Your task to perform on an android device: change keyboard looks Image 0: 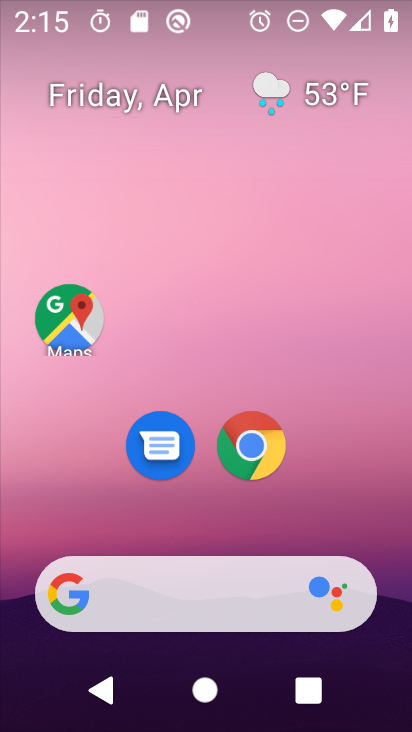
Step 0: drag from (379, 501) to (383, 93)
Your task to perform on an android device: change keyboard looks Image 1: 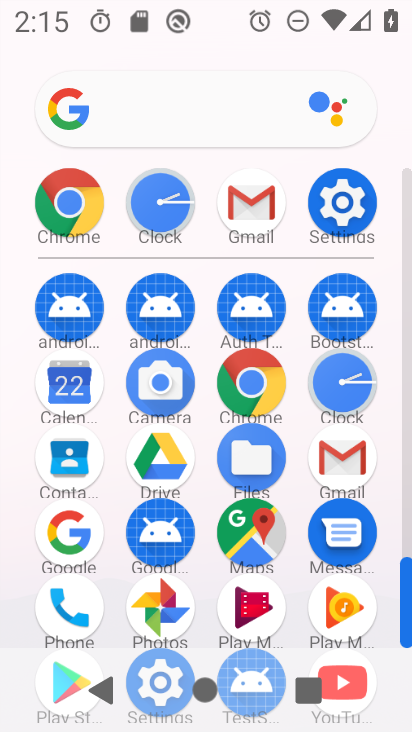
Step 1: click (352, 216)
Your task to perform on an android device: change keyboard looks Image 2: 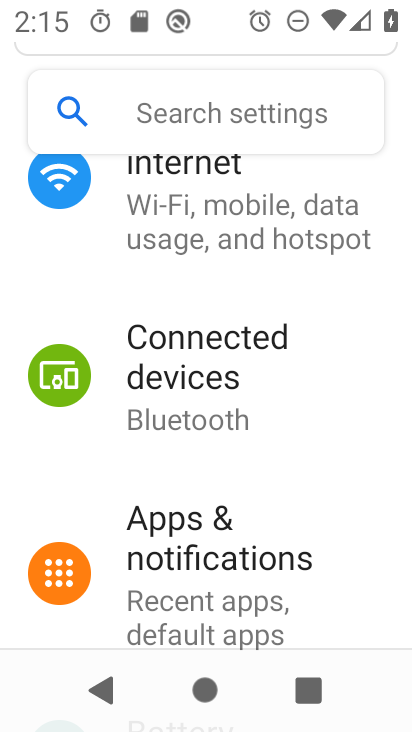
Step 2: drag from (364, 487) to (373, 386)
Your task to perform on an android device: change keyboard looks Image 3: 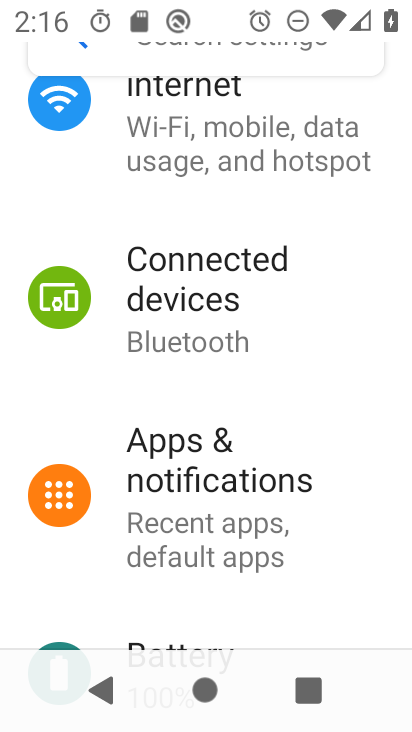
Step 3: drag from (362, 524) to (345, 361)
Your task to perform on an android device: change keyboard looks Image 4: 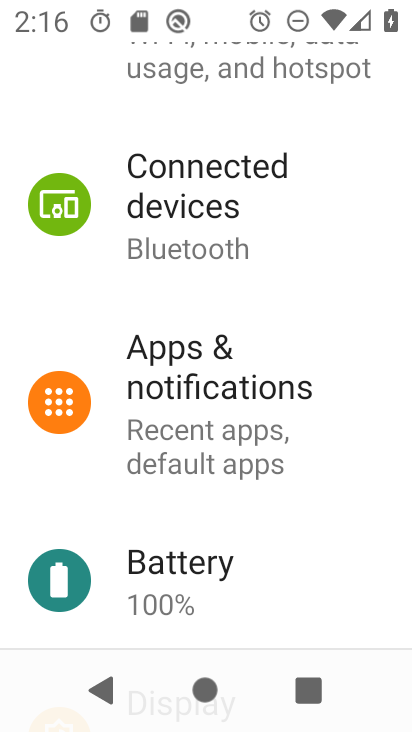
Step 4: drag from (353, 517) to (355, 379)
Your task to perform on an android device: change keyboard looks Image 5: 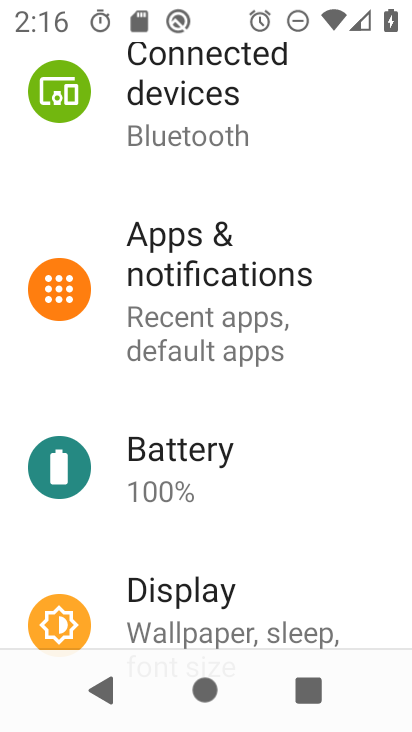
Step 5: drag from (350, 535) to (349, 376)
Your task to perform on an android device: change keyboard looks Image 6: 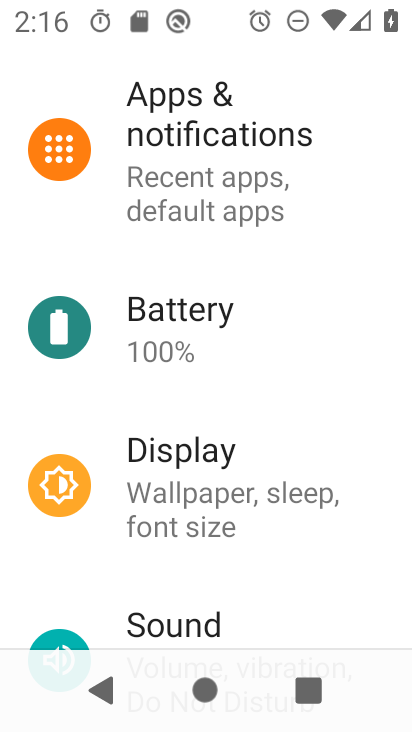
Step 6: drag from (358, 486) to (365, 345)
Your task to perform on an android device: change keyboard looks Image 7: 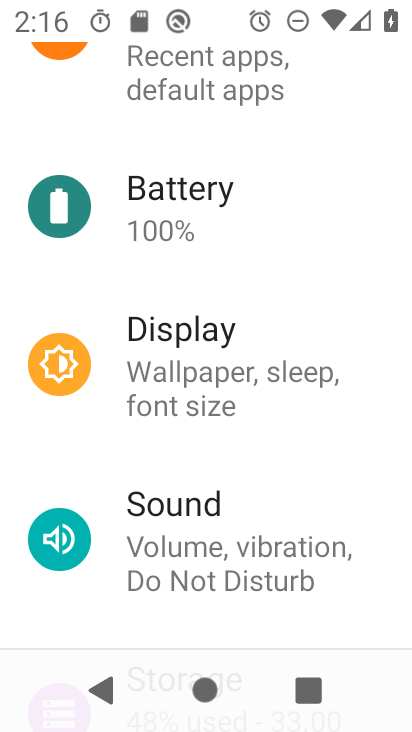
Step 7: drag from (354, 603) to (361, 462)
Your task to perform on an android device: change keyboard looks Image 8: 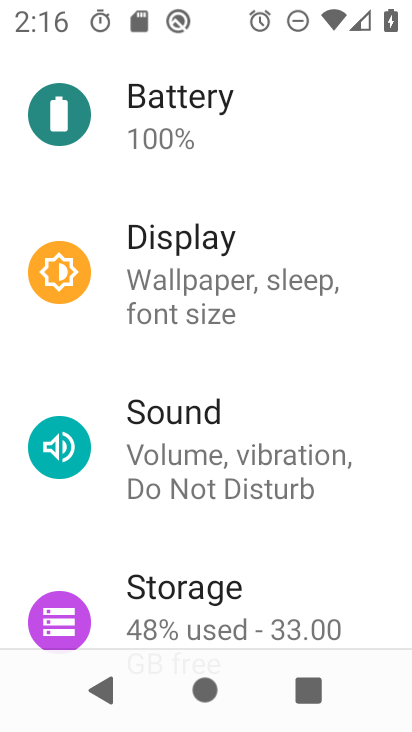
Step 8: drag from (370, 559) to (375, 350)
Your task to perform on an android device: change keyboard looks Image 9: 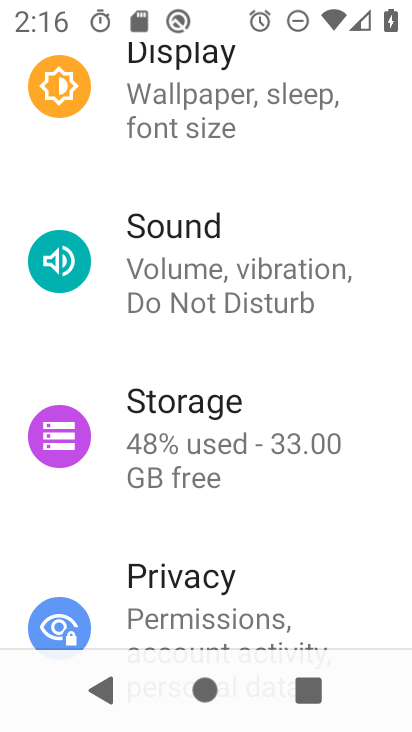
Step 9: drag from (358, 553) to (373, 391)
Your task to perform on an android device: change keyboard looks Image 10: 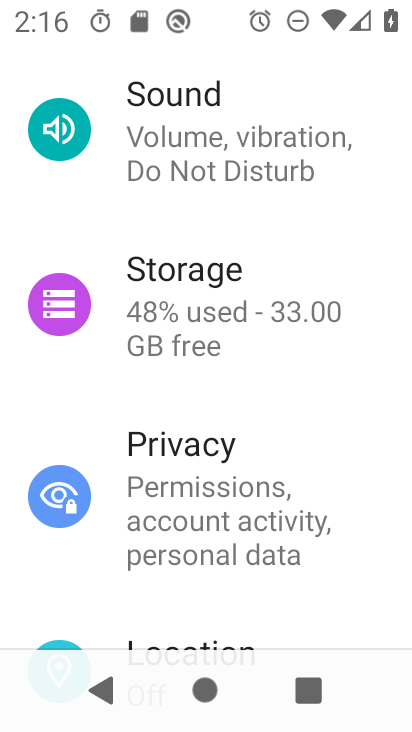
Step 10: drag from (365, 591) to (370, 441)
Your task to perform on an android device: change keyboard looks Image 11: 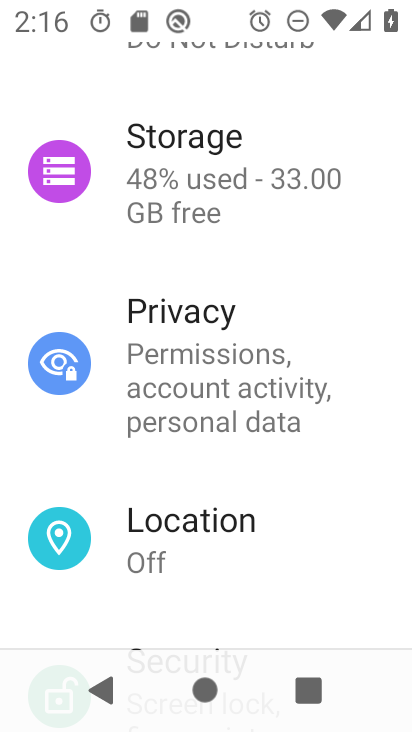
Step 11: drag from (362, 584) to (375, 440)
Your task to perform on an android device: change keyboard looks Image 12: 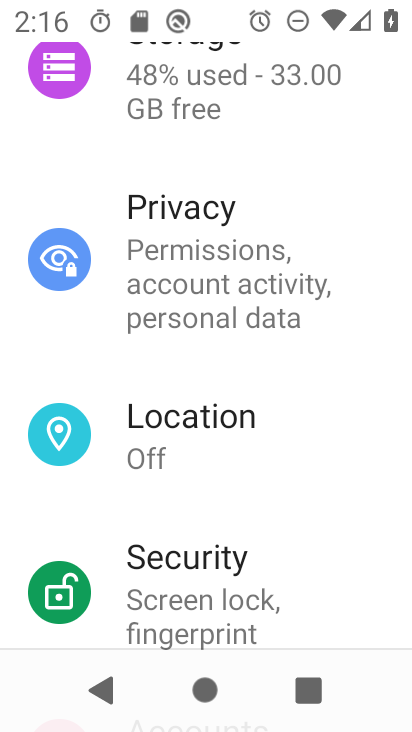
Step 12: drag from (362, 593) to (361, 375)
Your task to perform on an android device: change keyboard looks Image 13: 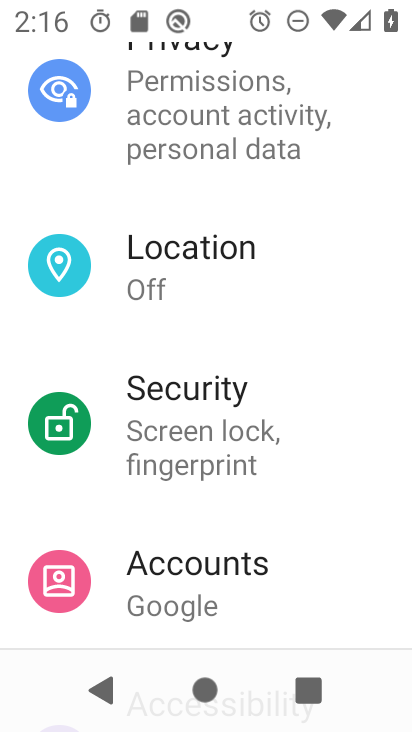
Step 13: drag from (347, 598) to (331, 384)
Your task to perform on an android device: change keyboard looks Image 14: 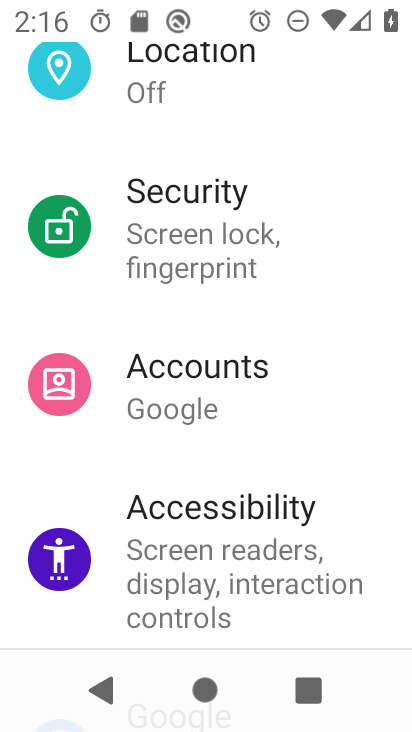
Step 14: drag from (347, 600) to (346, 371)
Your task to perform on an android device: change keyboard looks Image 15: 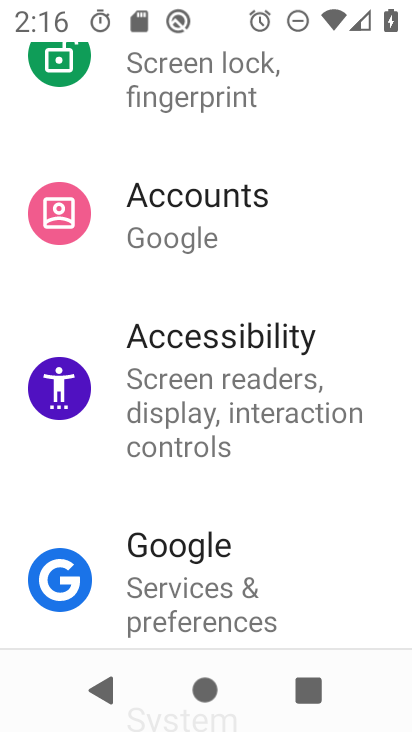
Step 15: drag from (330, 563) to (343, 348)
Your task to perform on an android device: change keyboard looks Image 16: 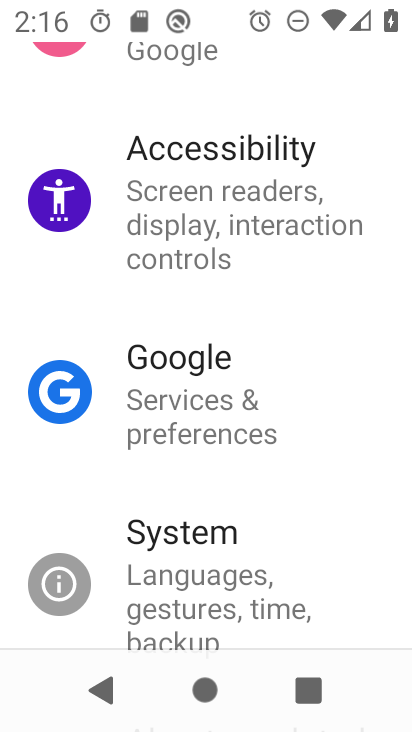
Step 16: drag from (341, 535) to (344, 414)
Your task to perform on an android device: change keyboard looks Image 17: 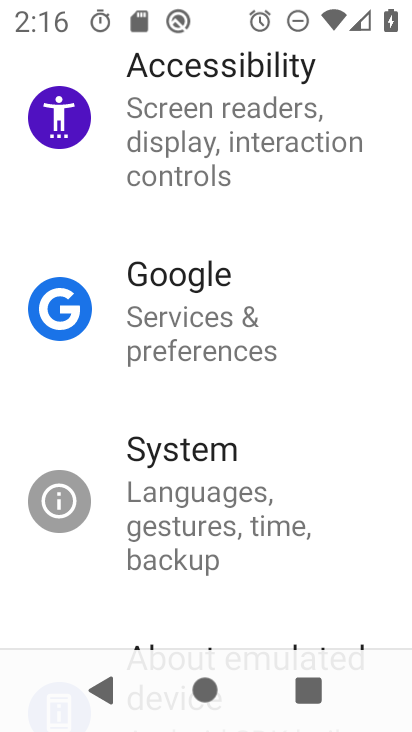
Step 17: click (298, 524)
Your task to perform on an android device: change keyboard looks Image 18: 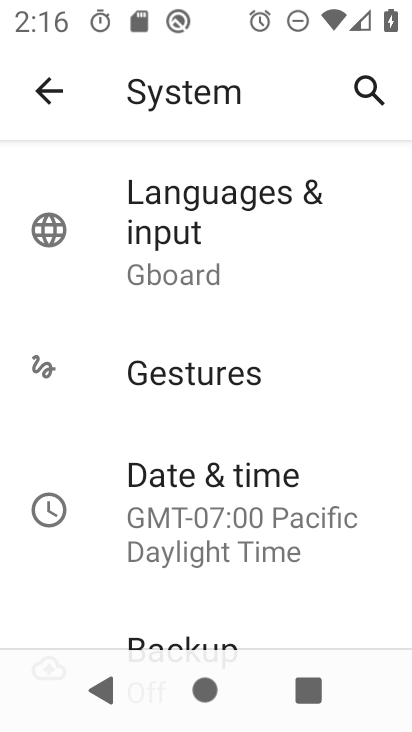
Step 18: drag from (330, 578) to (327, 354)
Your task to perform on an android device: change keyboard looks Image 19: 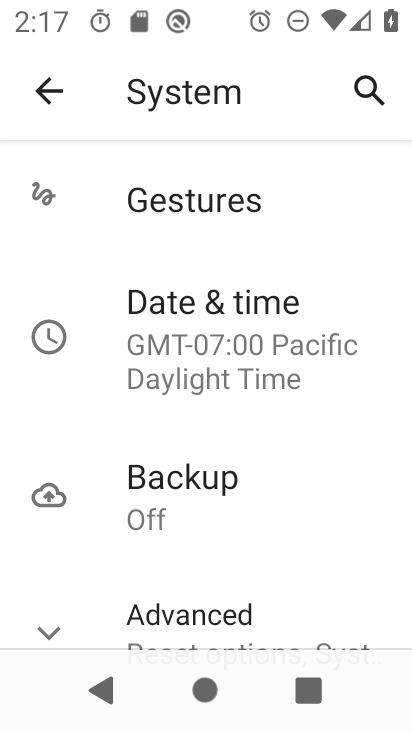
Step 19: drag from (339, 554) to (334, 374)
Your task to perform on an android device: change keyboard looks Image 20: 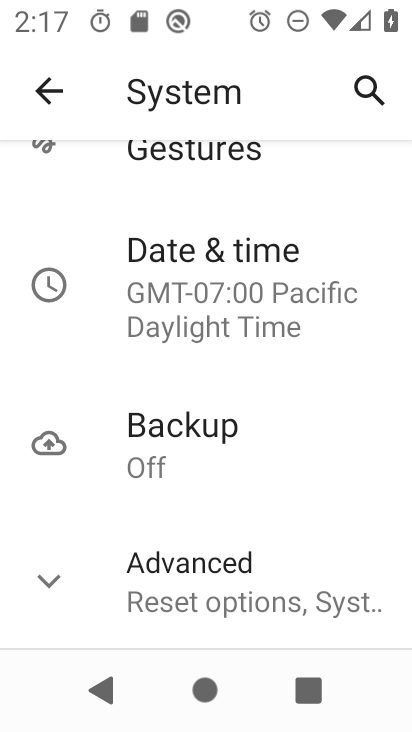
Step 20: drag from (334, 222) to (306, 504)
Your task to perform on an android device: change keyboard looks Image 21: 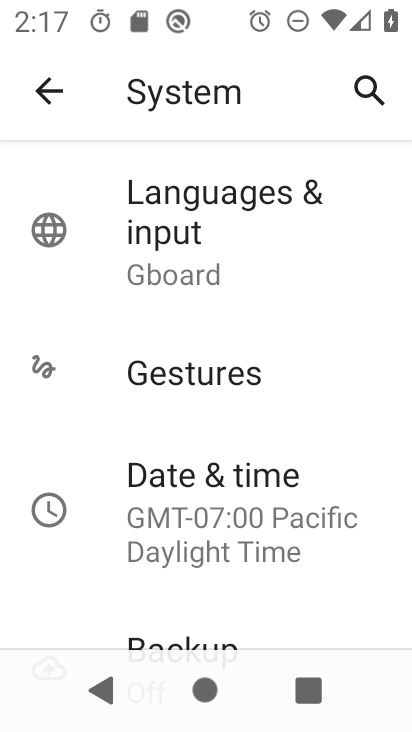
Step 21: drag from (340, 281) to (339, 439)
Your task to perform on an android device: change keyboard looks Image 22: 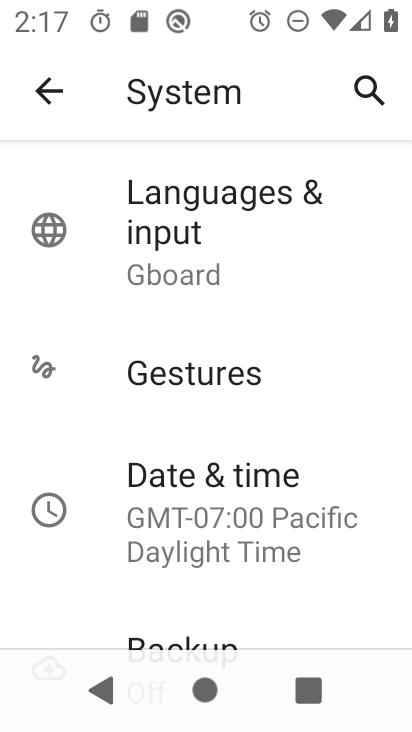
Step 22: click (210, 242)
Your task to perform on an android device: change keyboard looks Image 23: 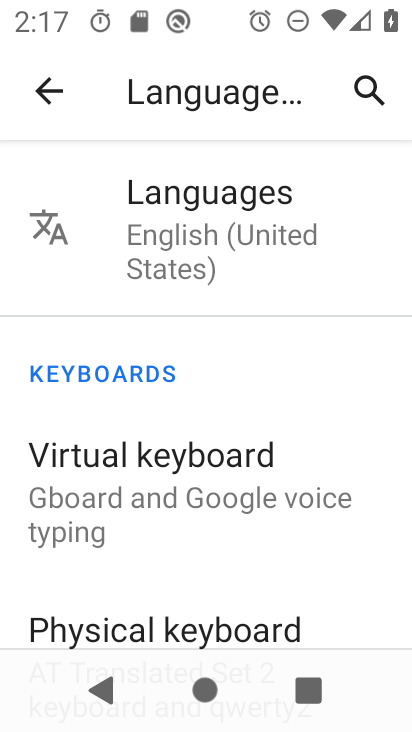
Step 23: click (169, 478)
Your task to perform on an android device: change keyboard looks Image 24: 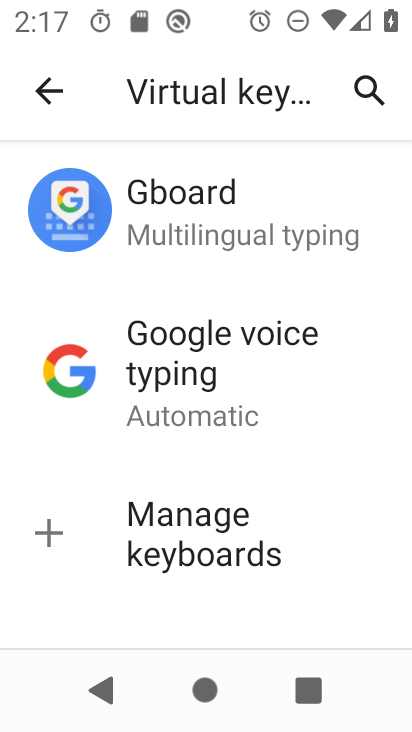
Step 24: click (202, 237)
Your task to perform on an android device: change keyboard looks Image 25: 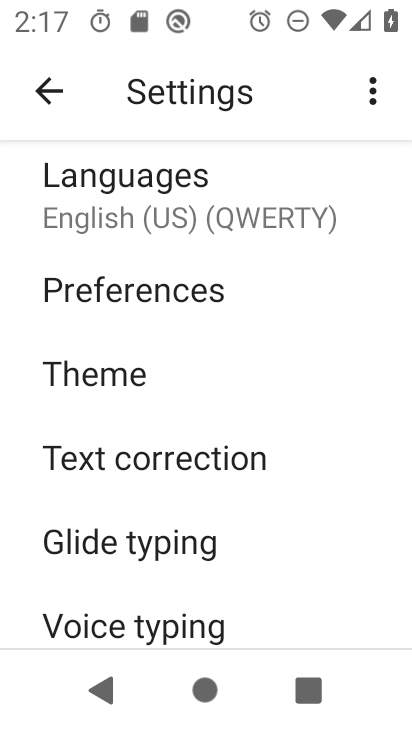
Step 25: click (142, 378)
Your task to perform on an android device: change keyboard looks Image 26: 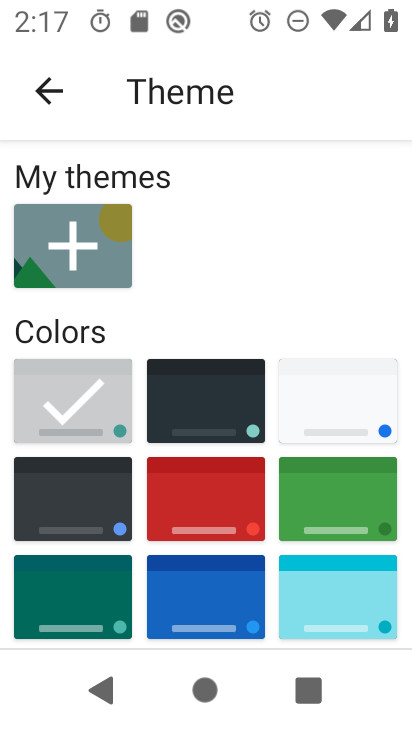
Step 26: click (195, 504)
Your task to perform on an android device: change keyboard looks Image 27: 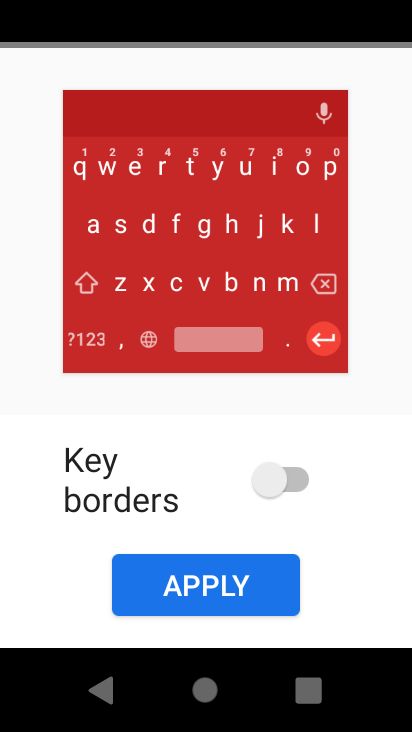
Step 27: click (228, 575)
Your task to perform on an android device: change keyboard looks Image 28: 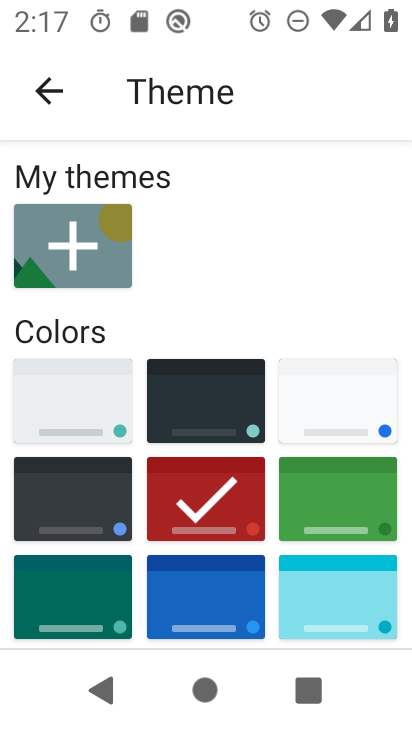
Step 28: task complete